Your task to perform on an android device: set the stopwatch Image 0: 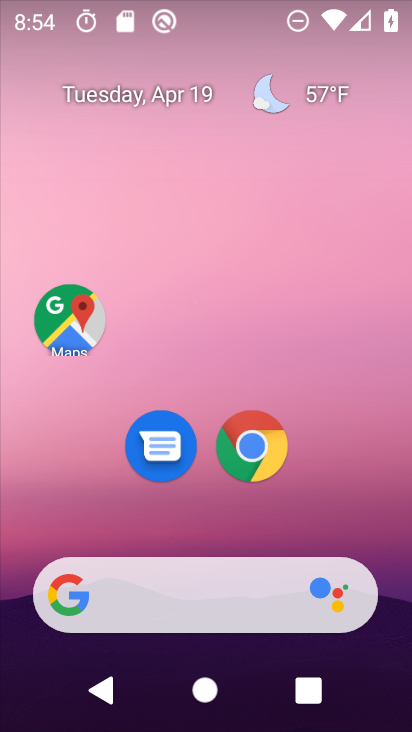
Step 0: press home button
Your task to perform on an android device: set the stopwatch Image 1: 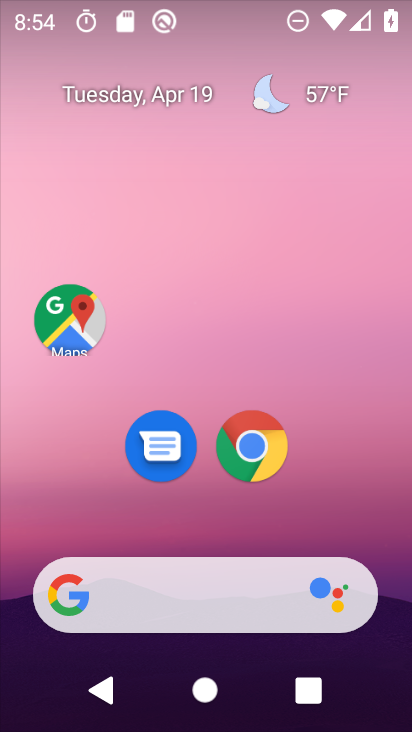
Step 1: drag from (327, 527) to (324, 142)
Your task to perform on an android device: set the stopwatch Image 2: 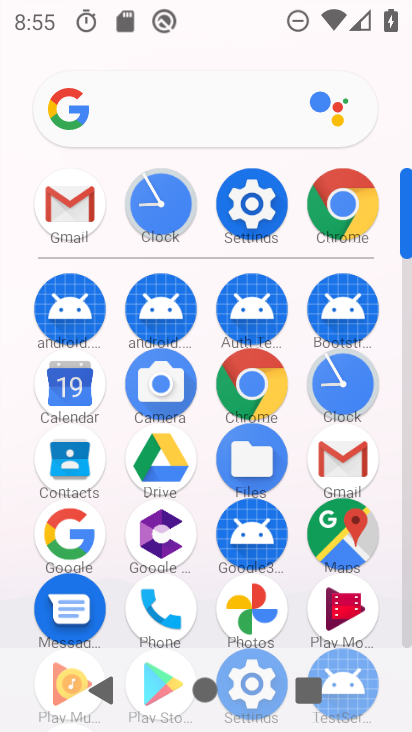
Step 2: click (342, 391)
Your task to perform on an android device: set the stopwatch Image 3: 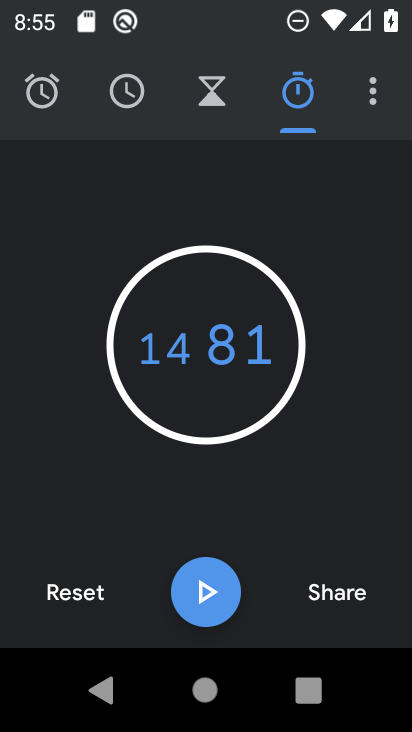
Step 3: click (210, 596)
Your task to perform on an android device: set the stopwatch Image 4: 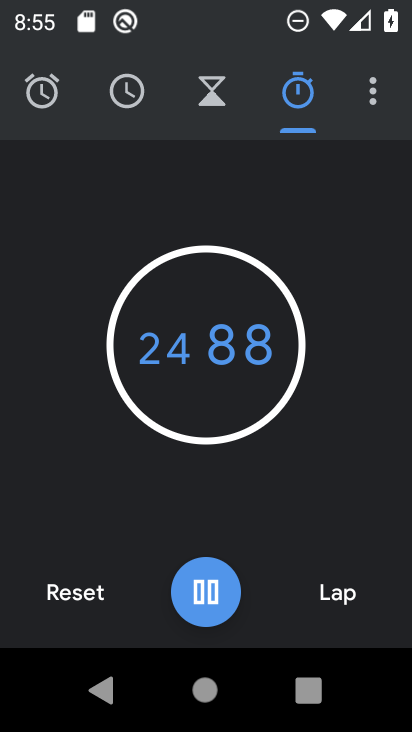
Step 4: click (207, 584)
Your task to perform on an android device: set the stopwatch Image 5: 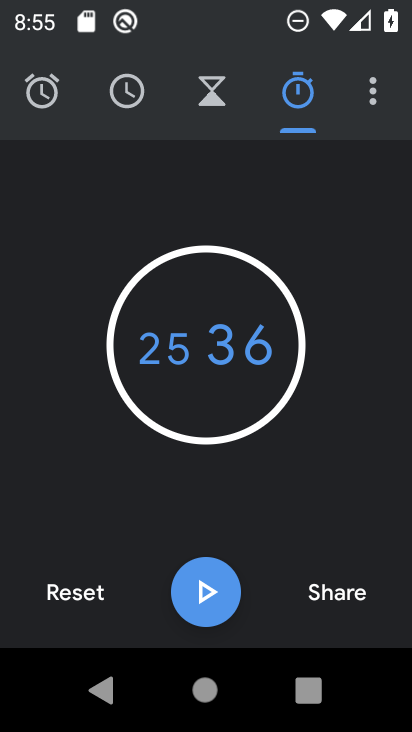
Step 5: task complete